Your task to perform on an android device: turn smart compose on in the gmail app Image 0: 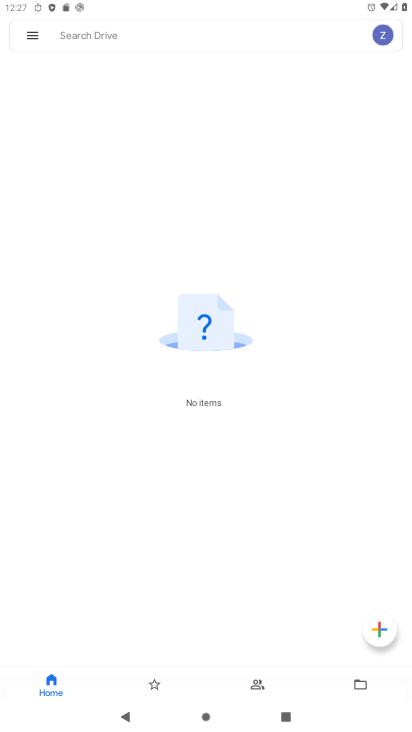
Step 0: press home button
Your task to perform on an android device: turn smart compose on in the gmail app Image 1: 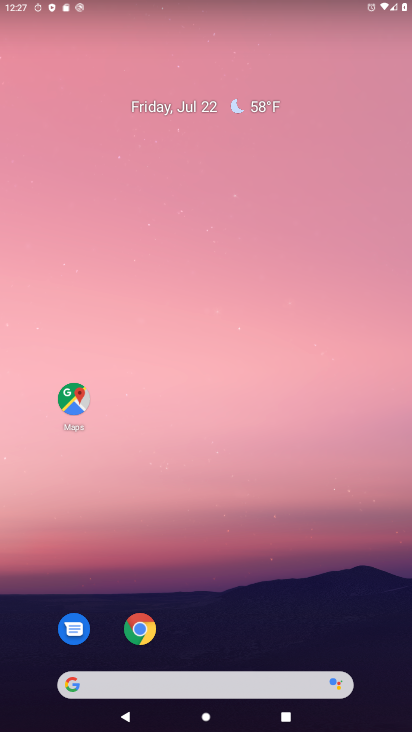
Step 1: drag from (370, 617) to (367, 180)
Your task to perform on an android device: turn smart compose on in the gmail app Image 2: 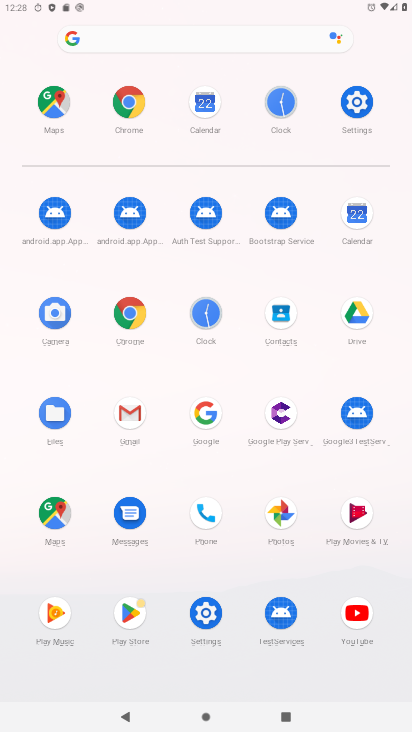
Step 2: click (131, 418)
Your task to perform on an android device: turn smart compose on in the gmail app Image 3: 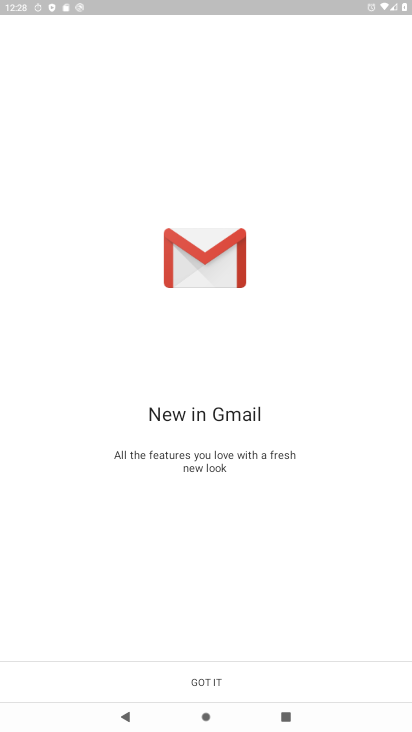
Step 3: click (204, 675)
Your task to perform on an android device: turn smart compose on in the gmail app Image 4: 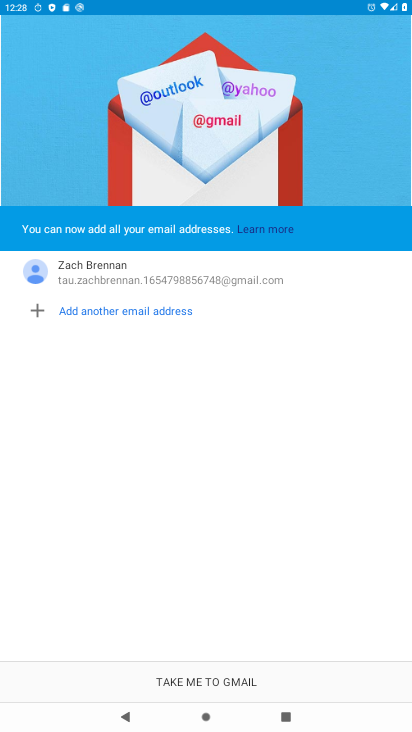
Step 4: click (204, 675)
Your task to perform on an android device: turn smart compose on in the gmail app Image 5: 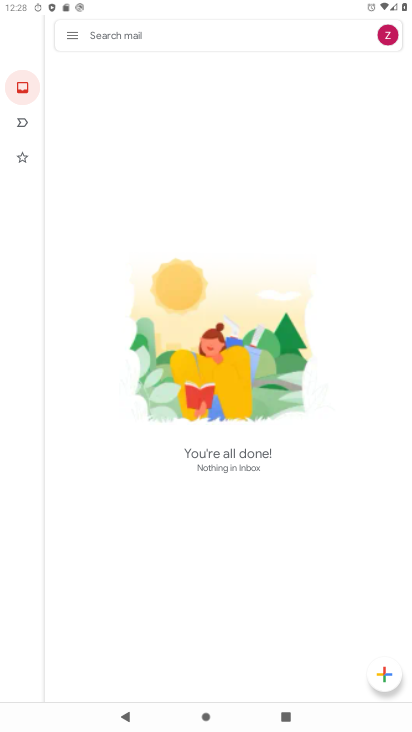
Step 5: click (73, 34)
Your task to perform on an android device: turn smart compose on in the gmail app Image 6: 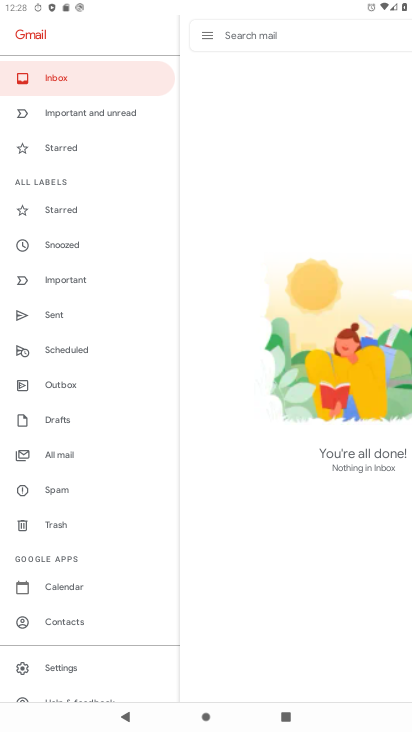
Step 6: drag from (116, 467) to (130, 391)
Your task to perform on an android device: turn smart compose on in the gmail app Image 7: 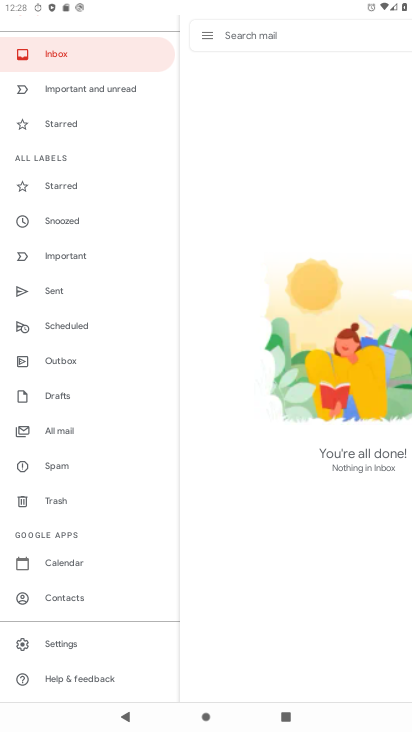
Step 7: click (72, 641)
Your task to perform on an android device: turn smart compose on in the gmail app Image 8: 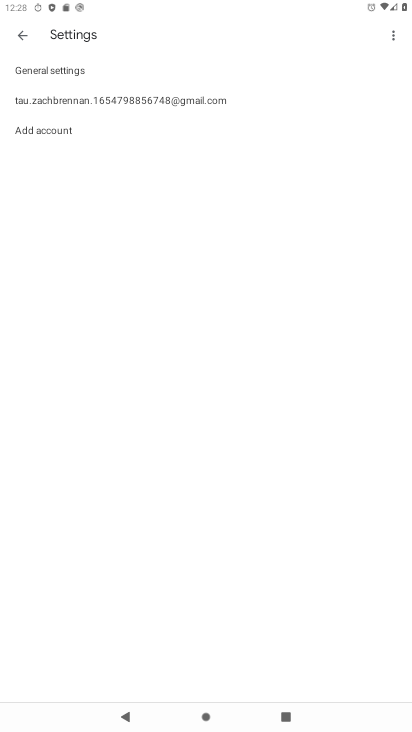
Step 8: click (123, 103)
Your task to perform on an android device: turn smart compose on in the gmail app Image 9: 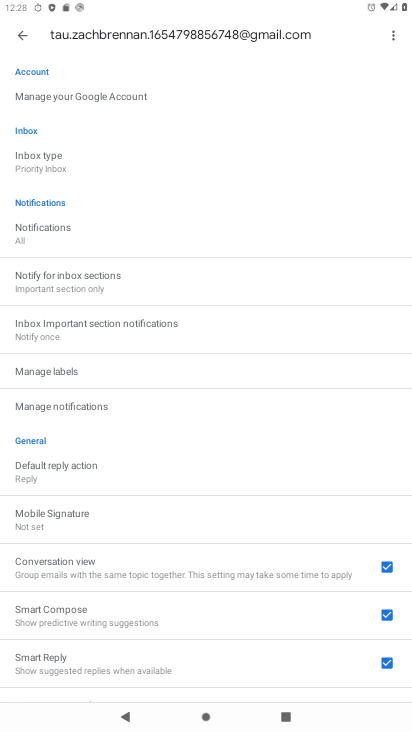
Step 9: task complete